Your task to perform on an android device: How do I get to the nearest Best Buy? Image 0: 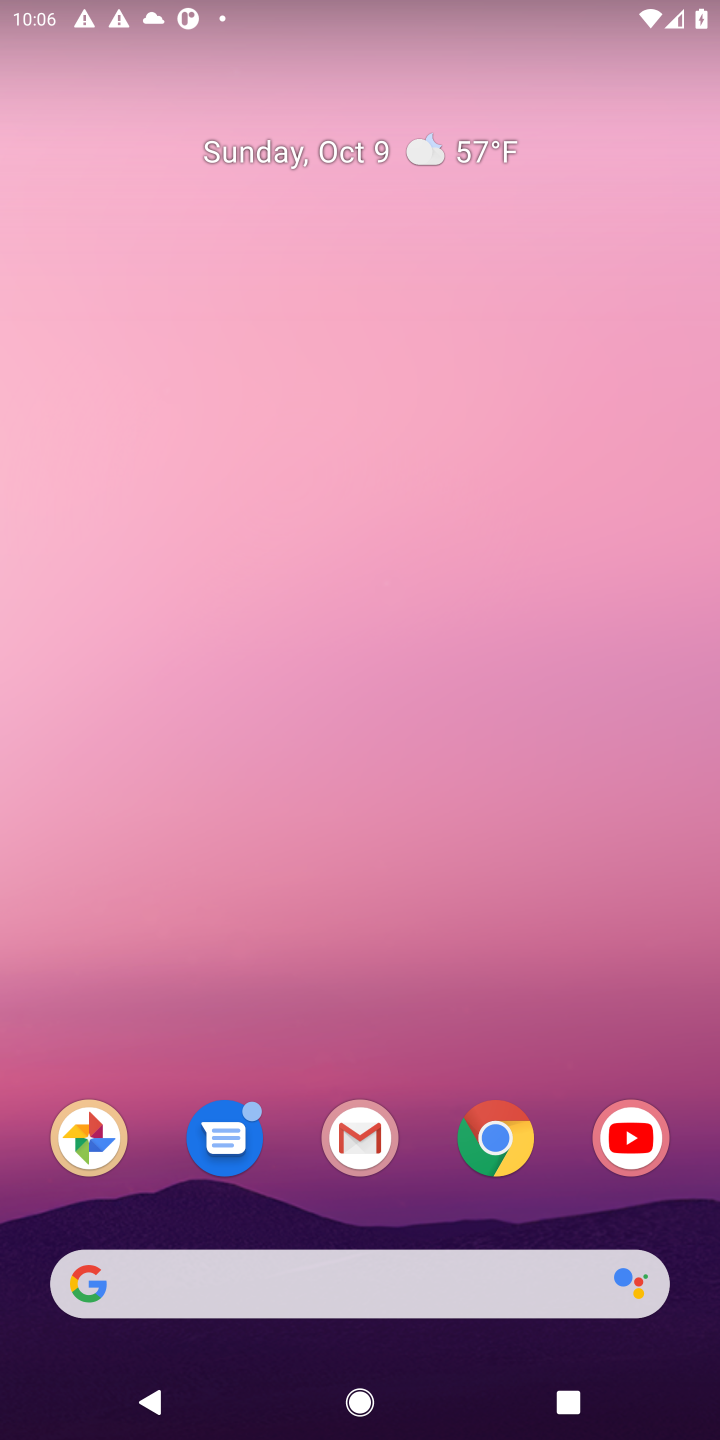
Step 0: click (160, 1296)
Your task to perform on an android device: How do I get to the nearest Best Buy? Image 1: 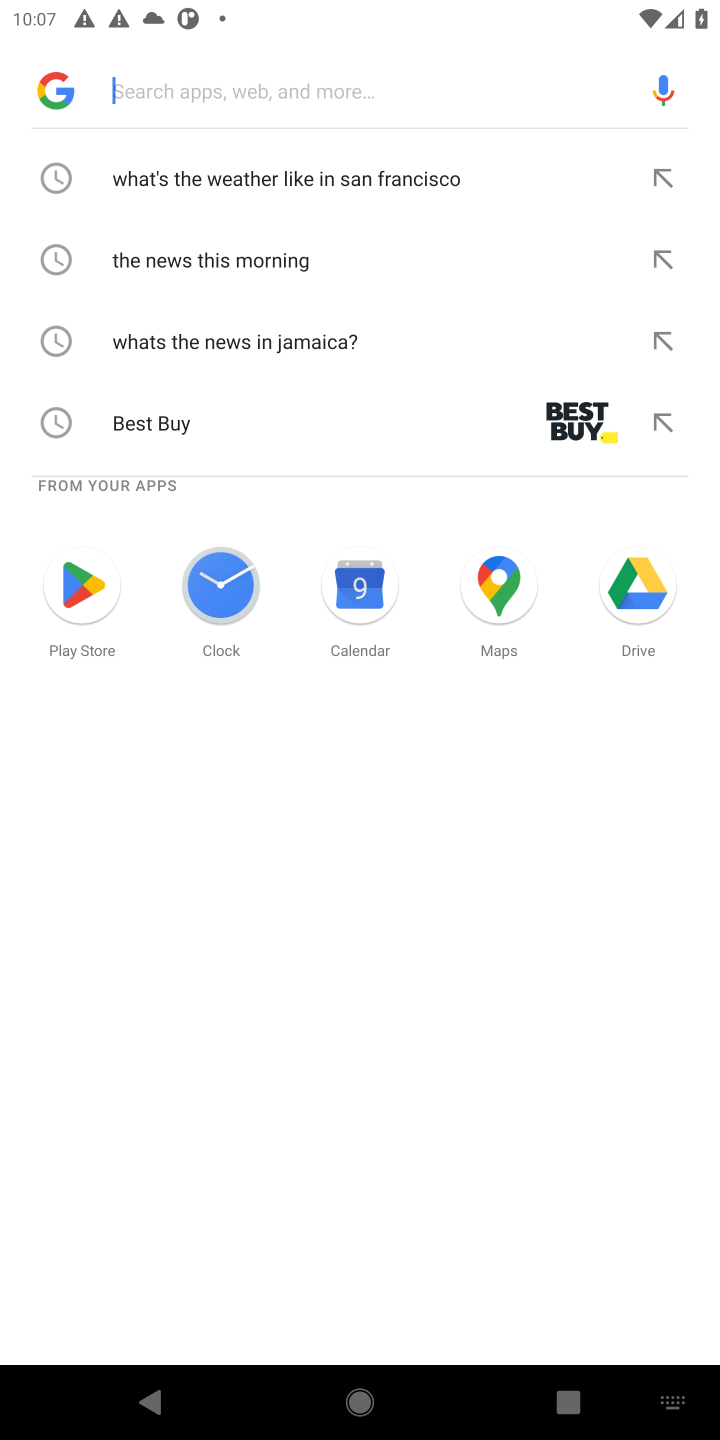
Step 1: click (272, 94)
Your task to perform on an android device: How do I get to the nearest Best Buy? Image 2: 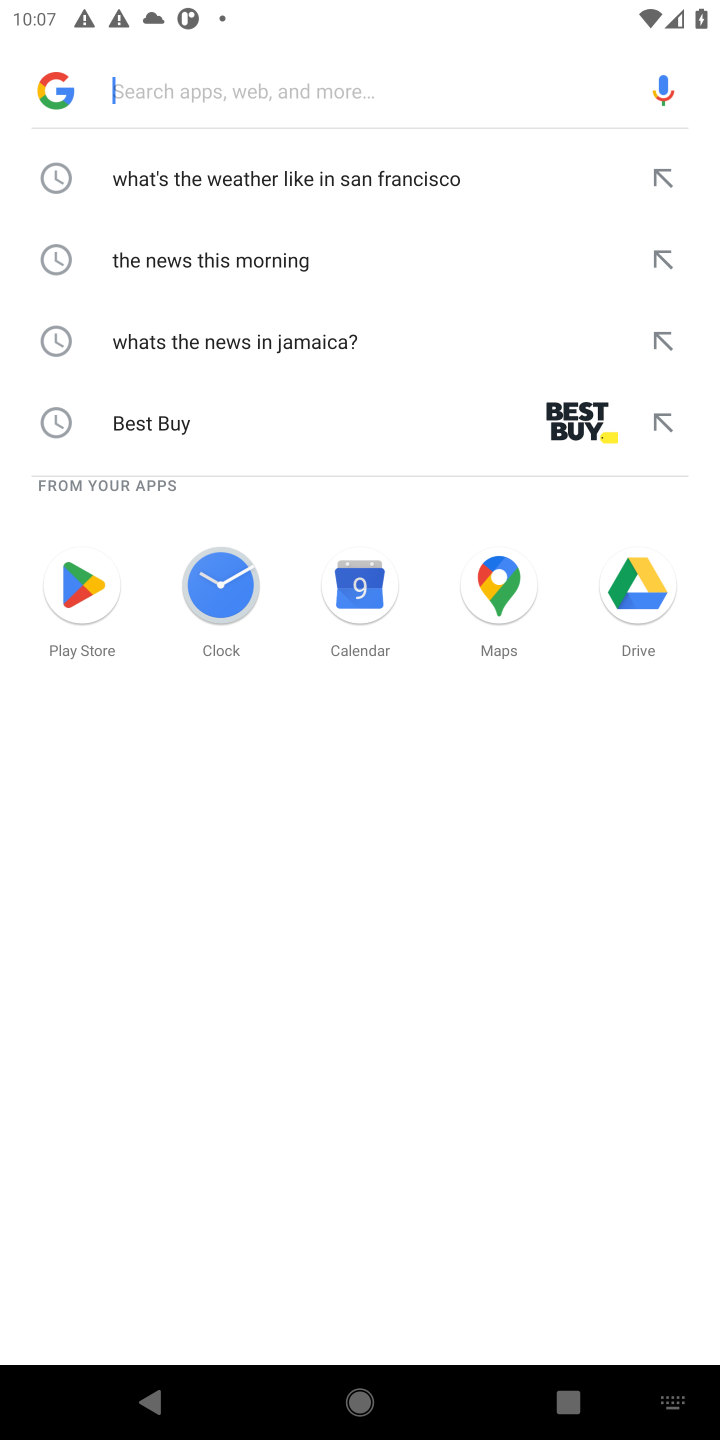
Step 2: type "how do i get to the nearest best buy?"
Your task to perform on an android device: How do I get to the nearest Best Buy? Image 3: 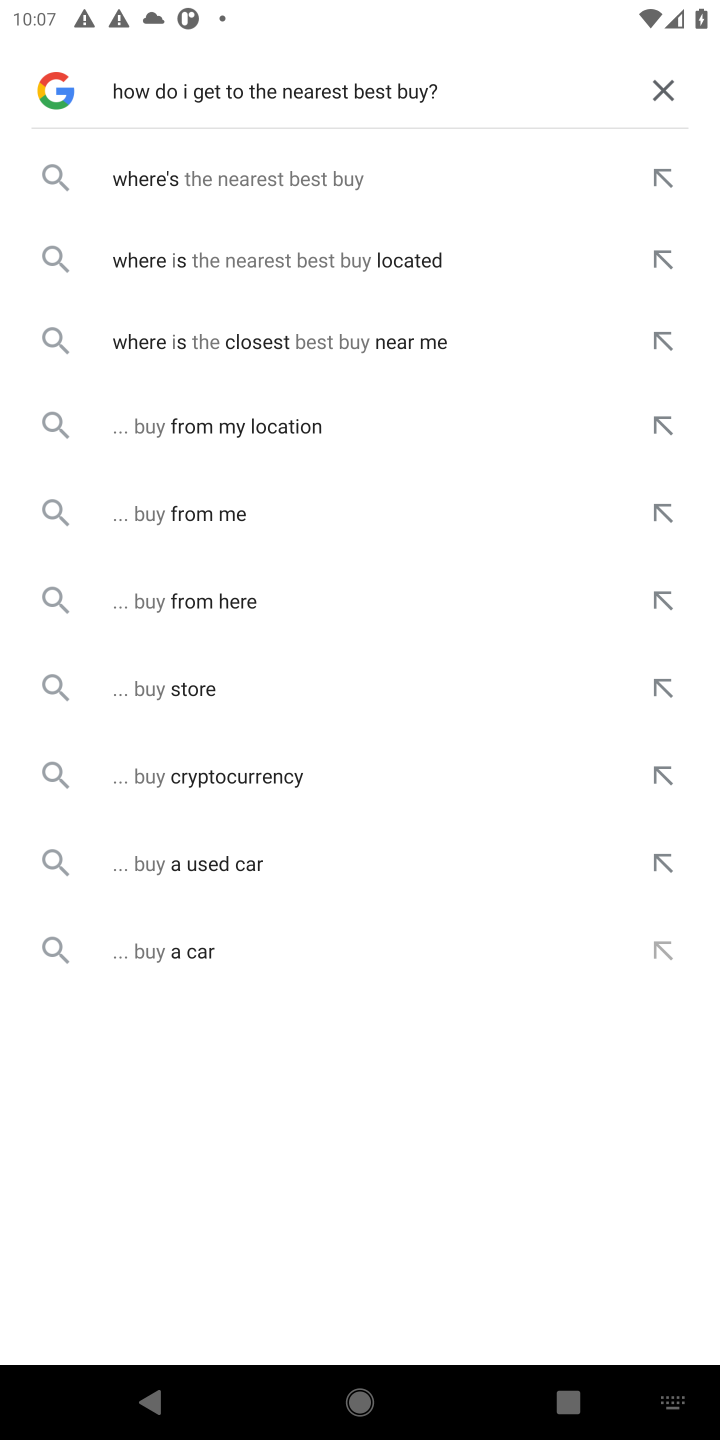
Step 3: click (338, 187)
Your task to perform on an android device: How do I get to the nearest Best Buy? Image 4: 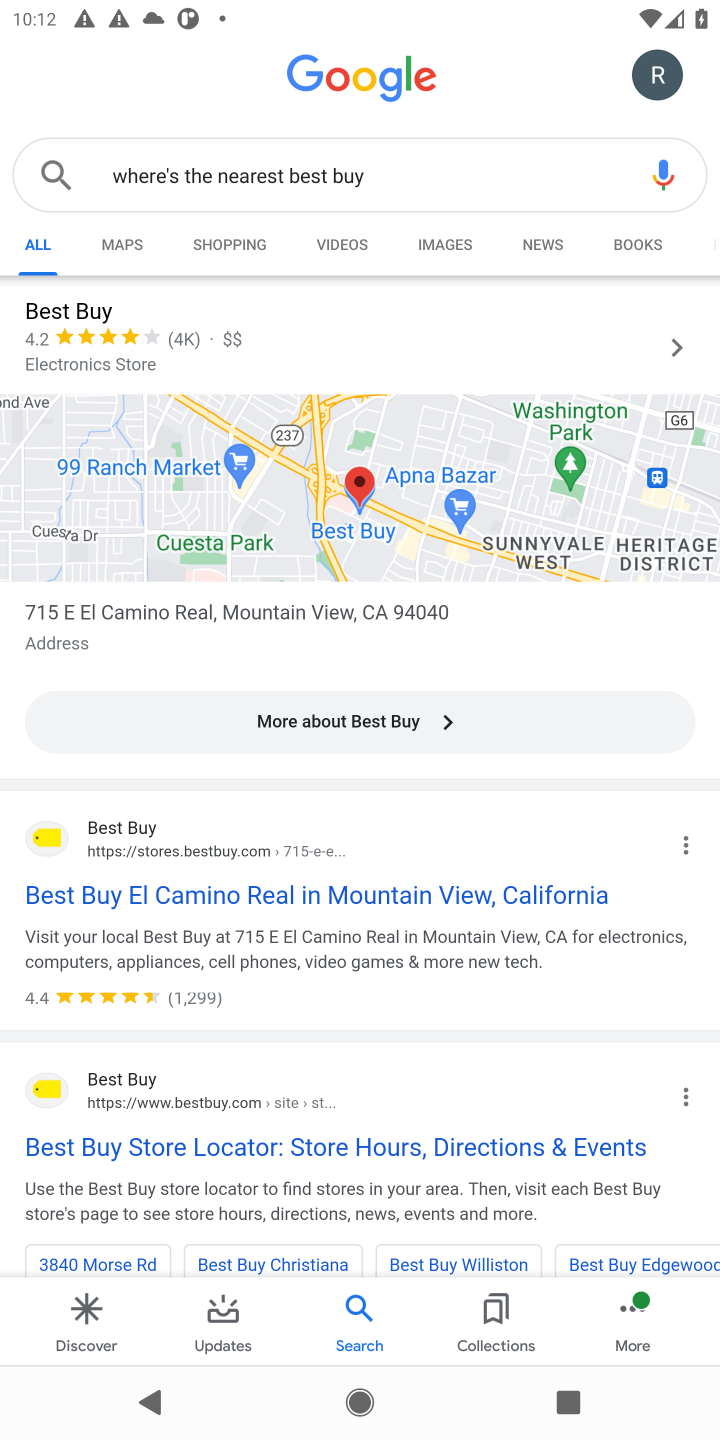
Step 4: task complete